Your task to perform on an android device: check battery use Image 0: 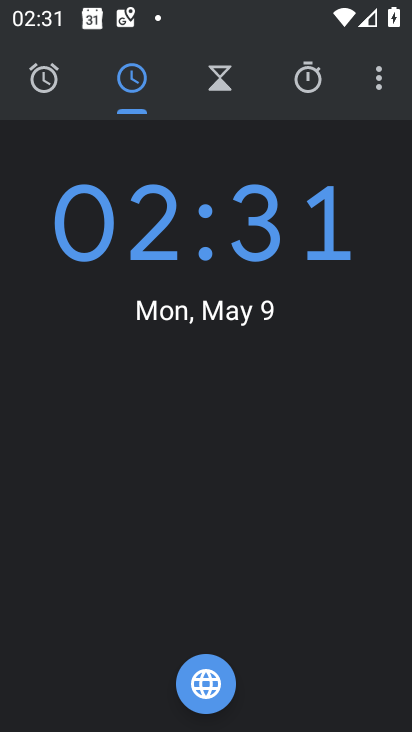
Step 0: press home button
Your task to perform on an android device: check battery use Image 1: 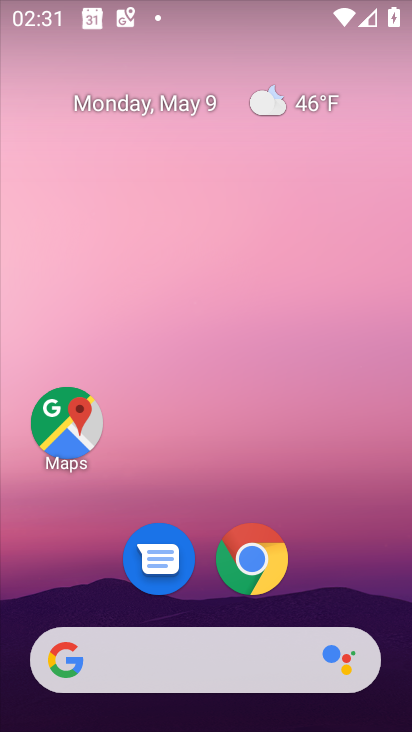
Step 1: drag from (309, 519) to (274, 58)
Your task to perform on an android device: check battery use Image 2: 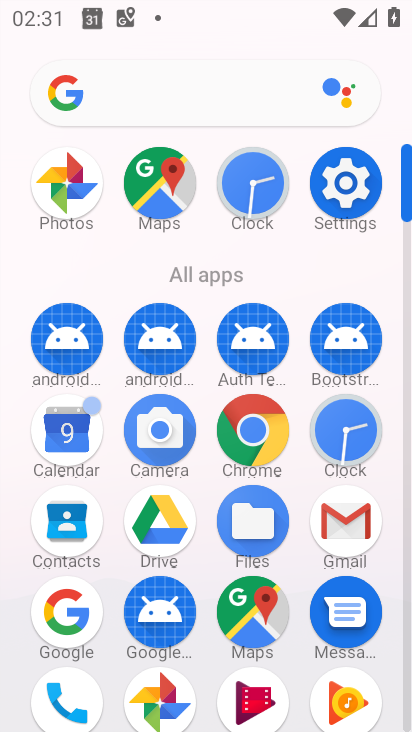
Step 2: click (347, 182)
Your task to perform on an android device: check battery use Image 3: 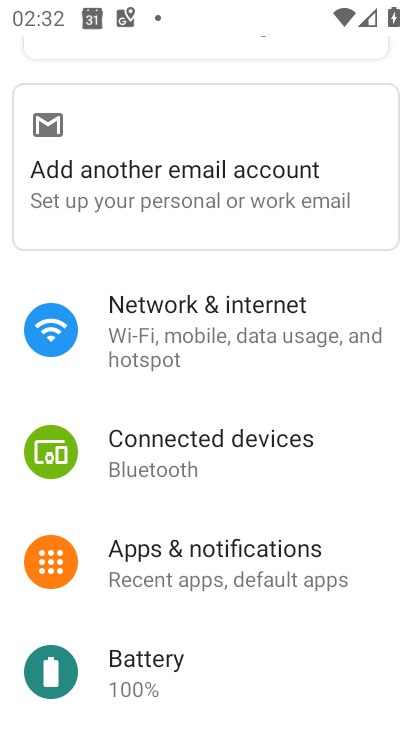
Step 3: click (146, 660)
Your task to perform on an android device: check battery use Image 4: 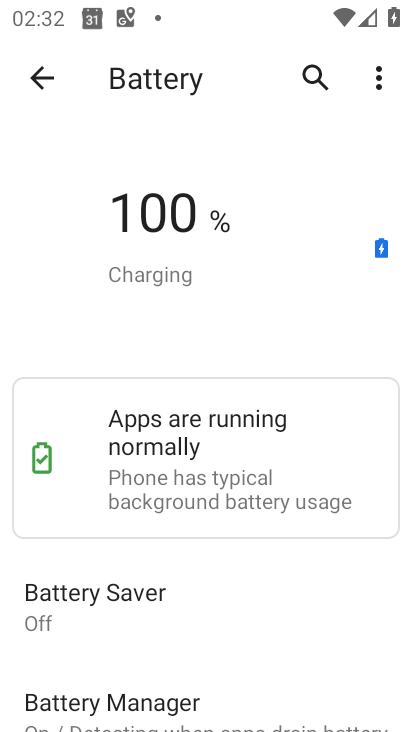
Step 4: click (380, 75)
Your task to perform on an android device: check battery use Image 5: 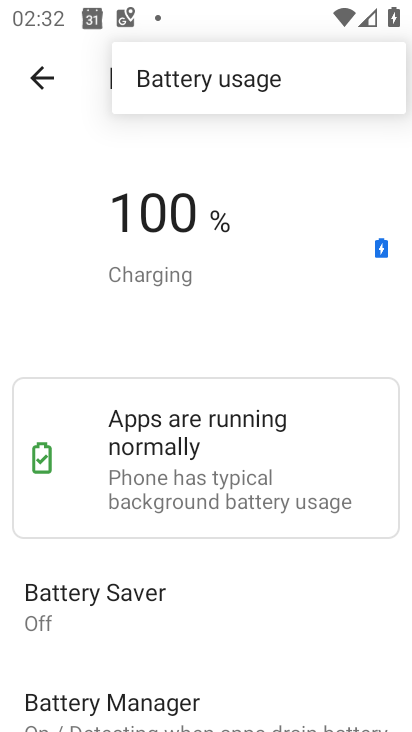
Step 5: click (267, 83)
Your task to perform on an android device: check battery use Image 6: 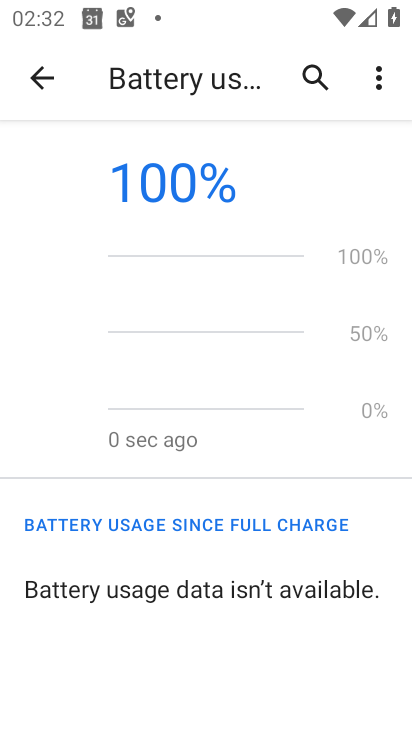
Step 6: task complete